Your task to perform on an android device: Toggle the flashlight Image 0: 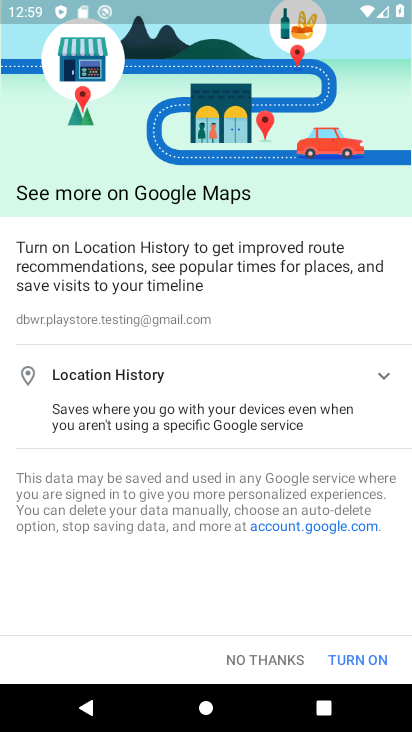
Step 0: click (357, 657)
Your task to perform on an android device: Toggle the flashlight Image 1: 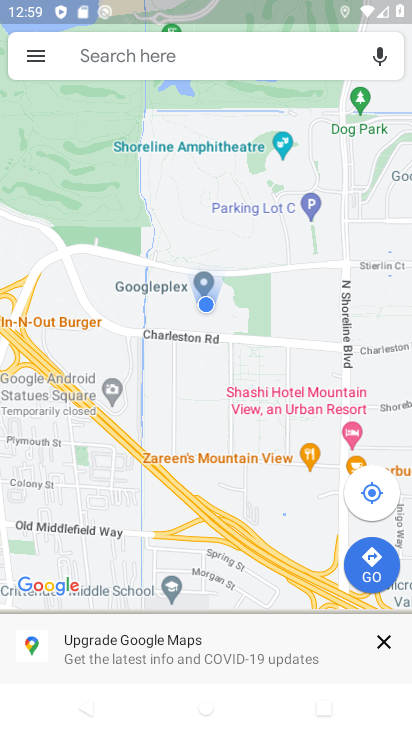
Step 1: click (381, 643)
Your task to perform on an android device: Toggle the flashlight Image 2: 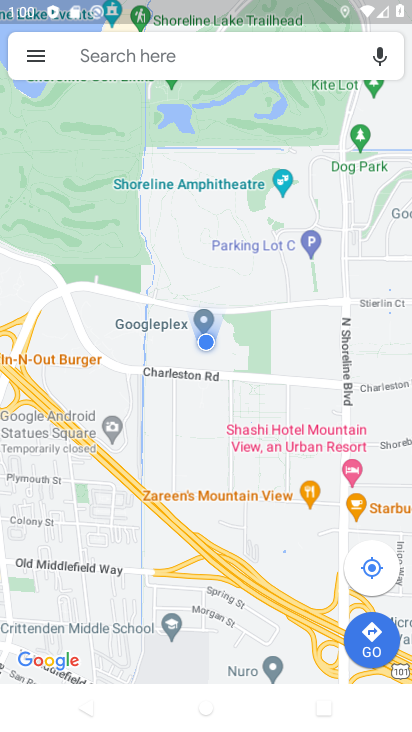
Step 2: press home button
Your task to perform on an android device: Toggle the flashlight Image 3: 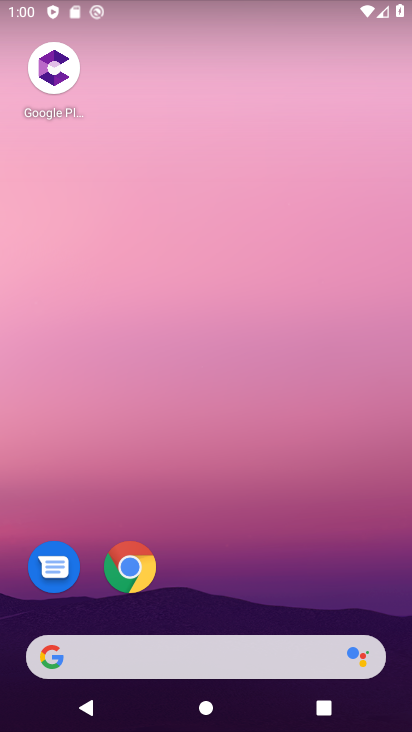
Step 3: drag from (214, 619) to (253, 58)
Your task to perform on an android device: Toggle the flashlight Image 4: 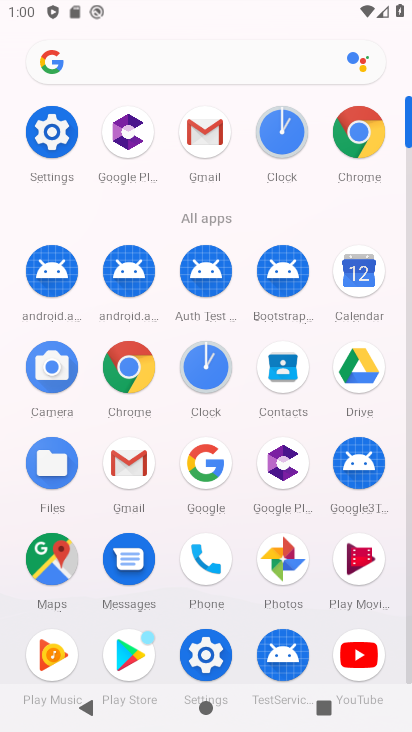
Step 4: click (50, 127)
Your task to perform on an android device: Toggle the flashlight Image 5: 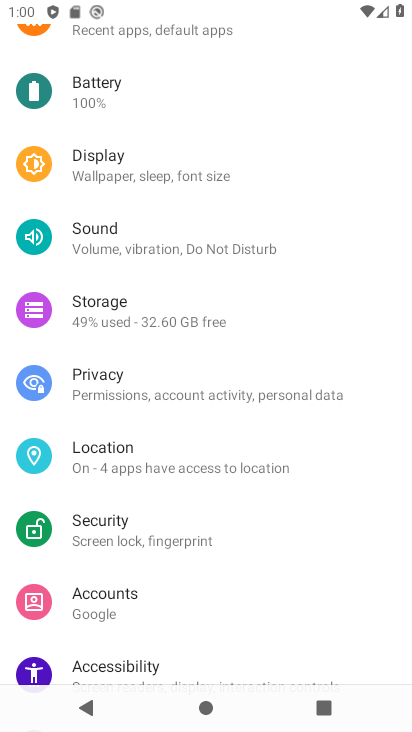
Step 5: drag from (182, 85) to (211, 657)
Your task to perform on an android device: Toggle the flashlight Image 6: 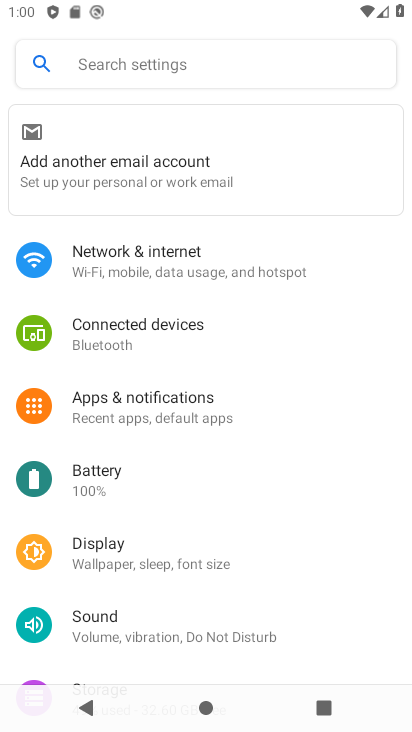
Step 6: click (180, 55)
Your task to perform on an android device: Toggle the flashlight Image 7: 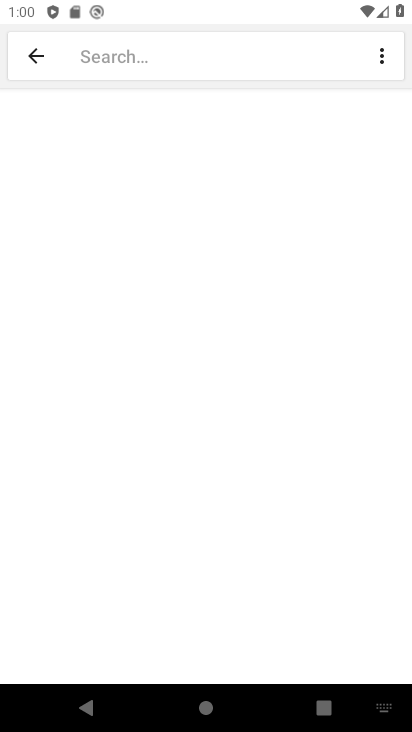
Step 7: click (115, 51)
Your task to perform on an android device: Toggle the flashlight Image 8: 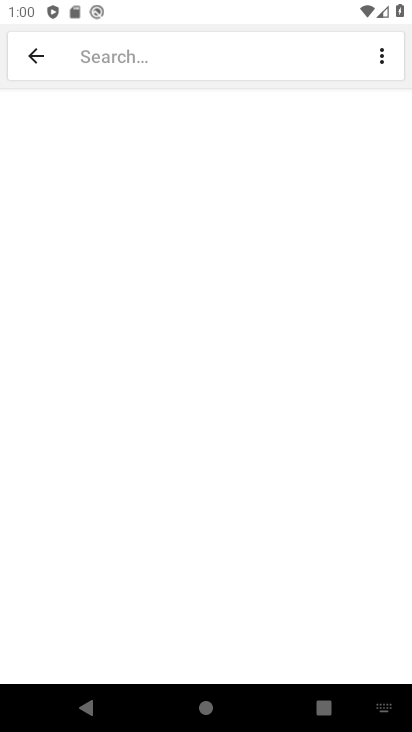
Step 8: type "flashlight"
Your task to perform on an android device: Toggle the flashlight Image 9: 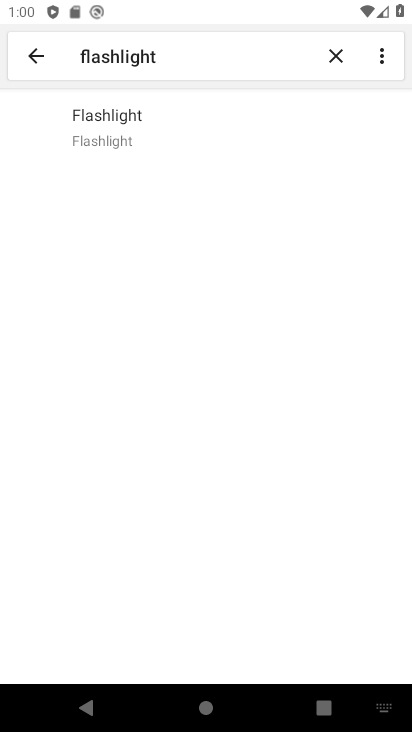
Step 9: click (126, 122)
Your task to perform on an android device: Toggle the flashlight Image 10: 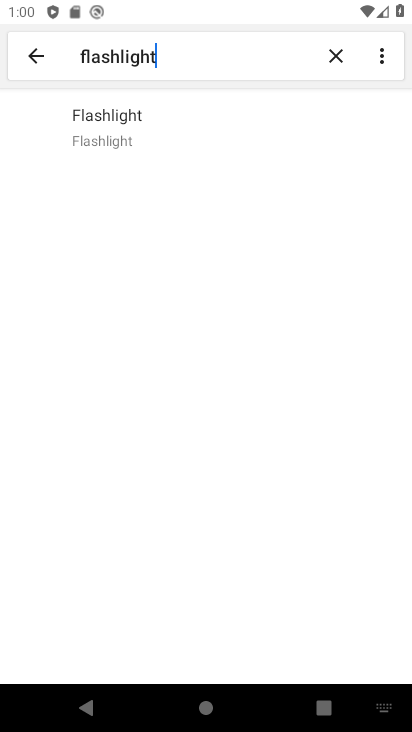
Step 10: click (138, 130)
Your task to perform on an android device: Toggle the flashlight Image 11: 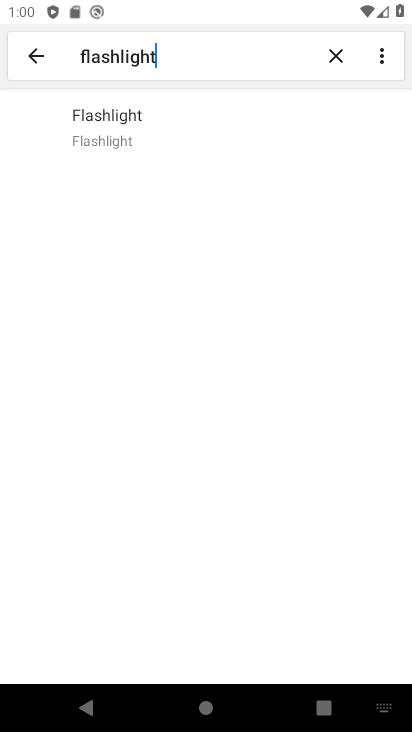
Step 11: task complete